Your task to perform on an android device: Do I have any events this weekend? Image 0: 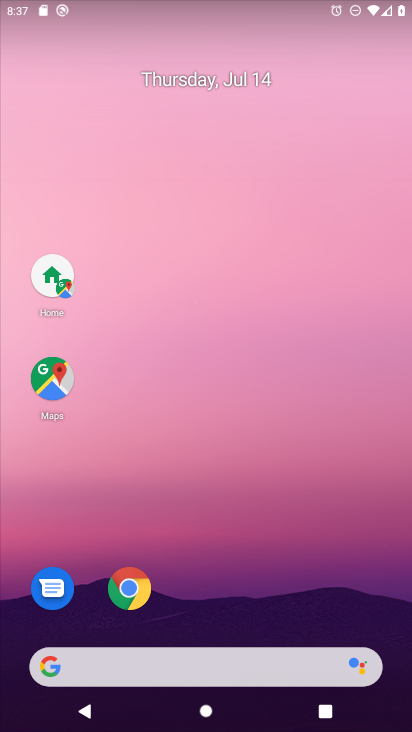
Step 0: drag from (37, 697) to (171, 15)
Your task to perform on an android device: Do I have any events this weekend? Image 1: 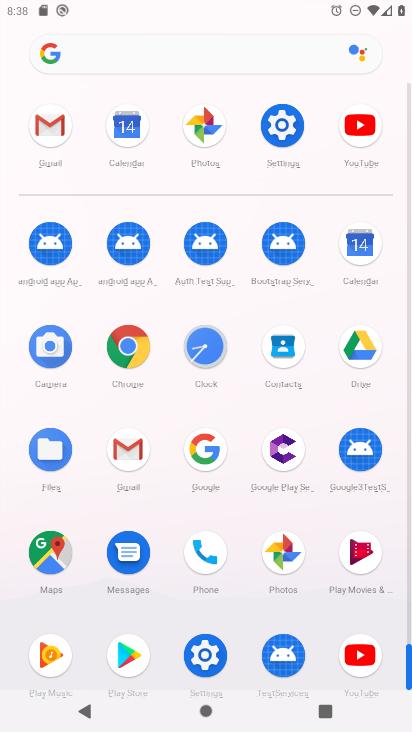
Step 1: click (354, 260)
Your task to perform on an android device: Do I have any events this weekend? Image 2: 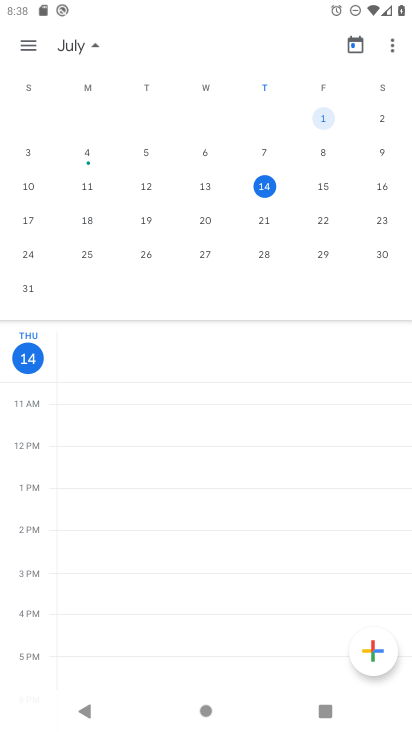
Step 2: task complete